Your task to perform on an android device: Go to accessibility settings Image 0: 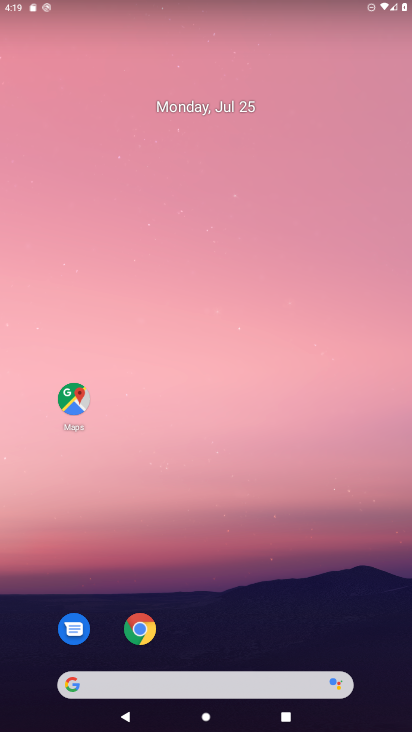
Step 0: drag from (306, 695) to (278, 67)
Your task to perform on an android device: Go to accessibility settings Image 1: 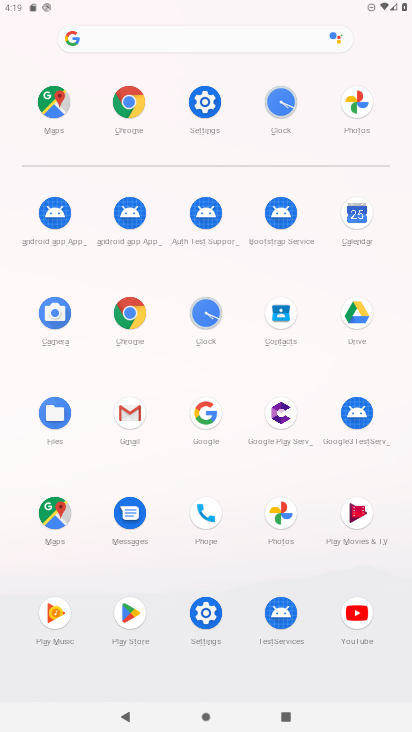
Step 1: click (206, 97)
Your task to perform on an android device: Go to accessibility settings Image 2: 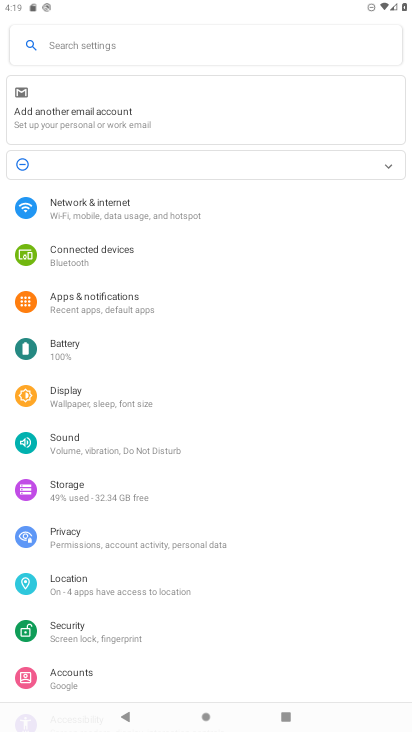
Step 2: drag from (73, 714) to (128, 268)
Your task to perform on an android device: Go to accessibility settings Image 3: 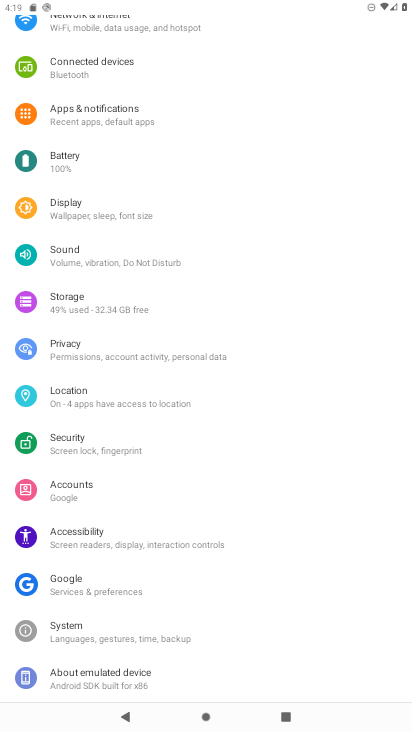
Step 3: click (124, 533)
Your task to perform on an android device: Go to accessibility settings Image 4: 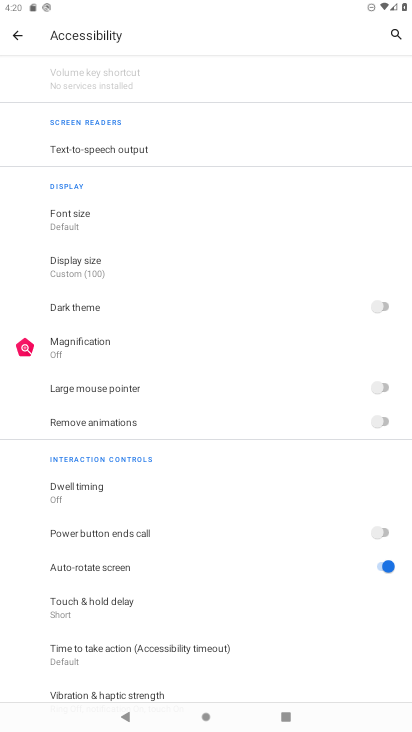
Step 4: task complete